Your task to perform on an android device: Go to Wikipedia Image 0: 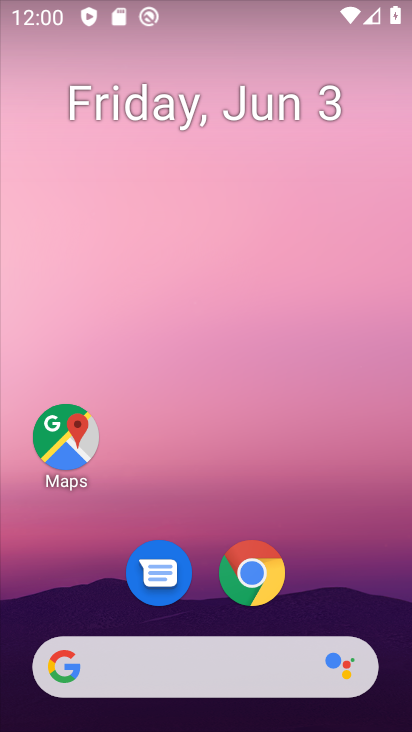
Step 0: task complete